Your task to perform on an android device: toggle show notifications on the lock screen Image 0: 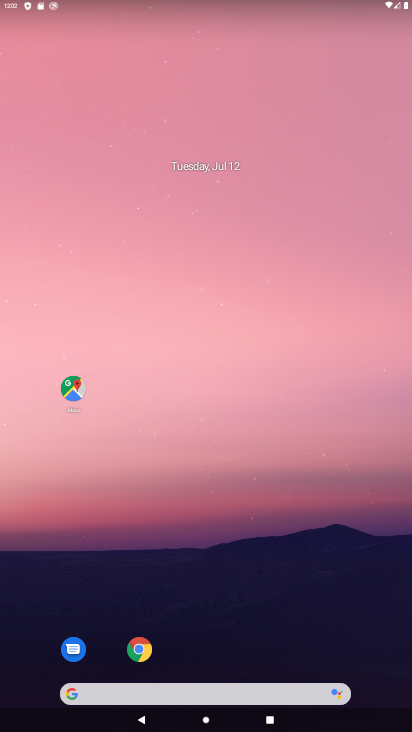
Step 0: drag from (338, 632) to (215, 25)
Your task to perform on an android device: toggle show notifications on the lock screen Image 1: 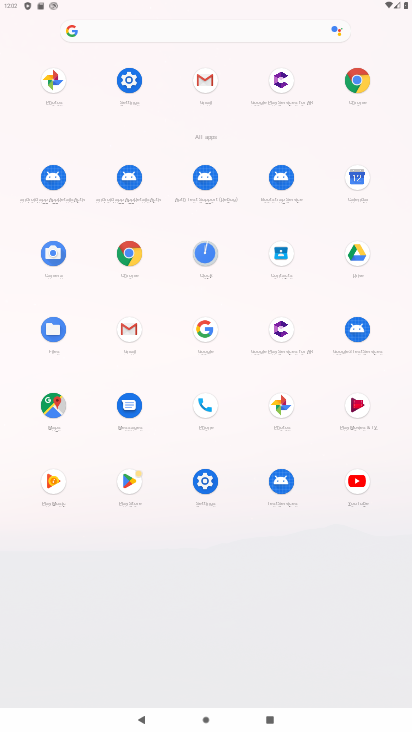
Step 1: click (120, 103)
Your task to perform on an android device: toggle show notifications on the lock screen Image 2: 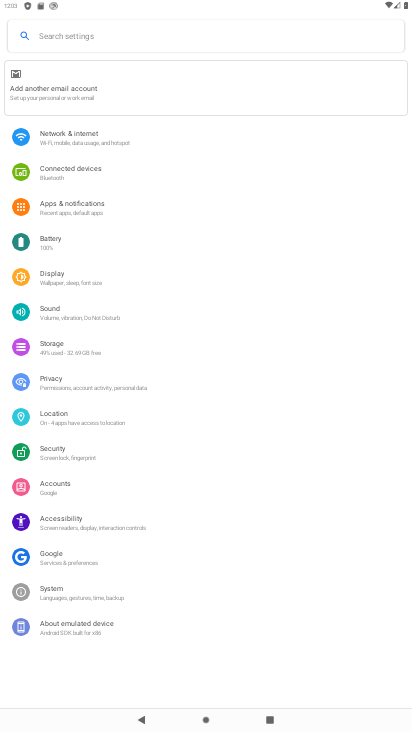
Step 2: click (124, 130)
Your task to perform on an android device: toggle show notifications on the lock screen Image 3: 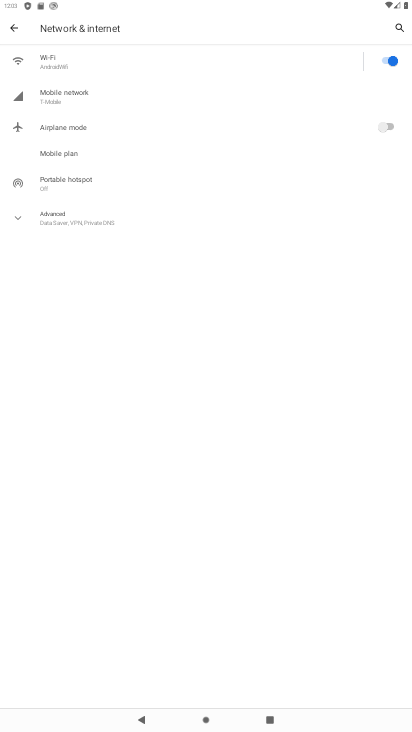
Step 3: press back button
Your task to perform on an android device: toggle show notifications on the lock screen Image 4: 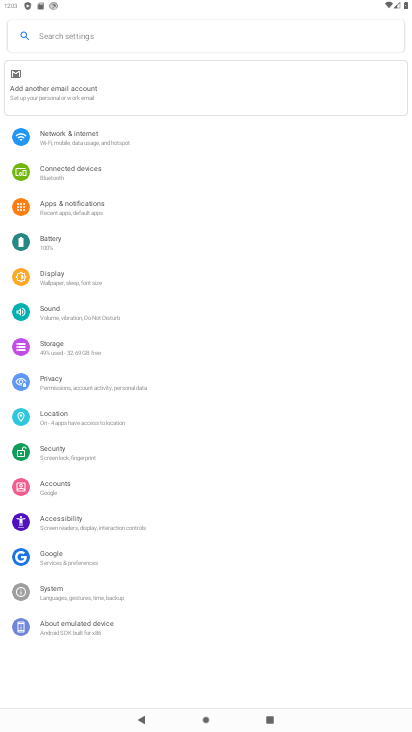
Step 4: click (154, 215)
Your task to perform on an android device: toggle show notifications on the lock screen Image 5: 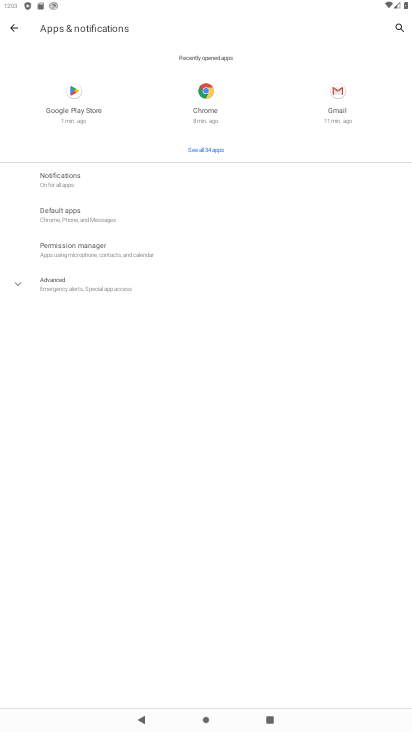
Step 5: click (50, 281)
Your task to perform on an android device: toggle show notifications on the lock screen Image 6: 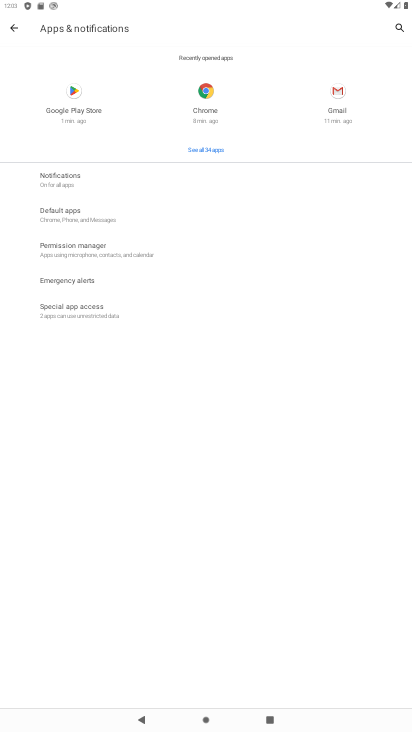
Step 6: click (50, 281)
Your task to perform on an android device: toggle show notifications on the lock screen Image 7: 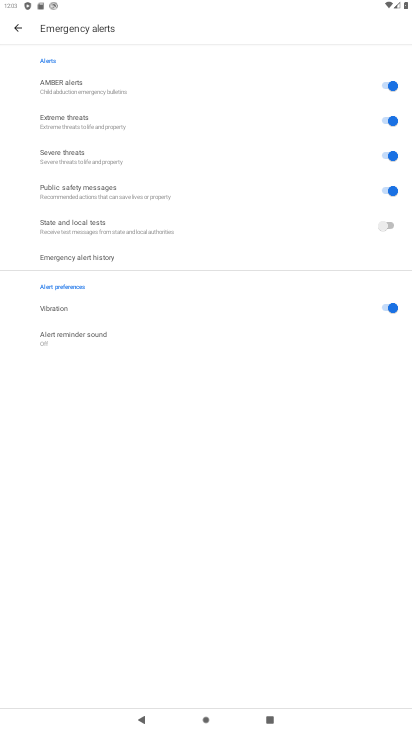
Step 7: task complete